Your task to perform on an android device: change notification settings in the gmail app Image 0: 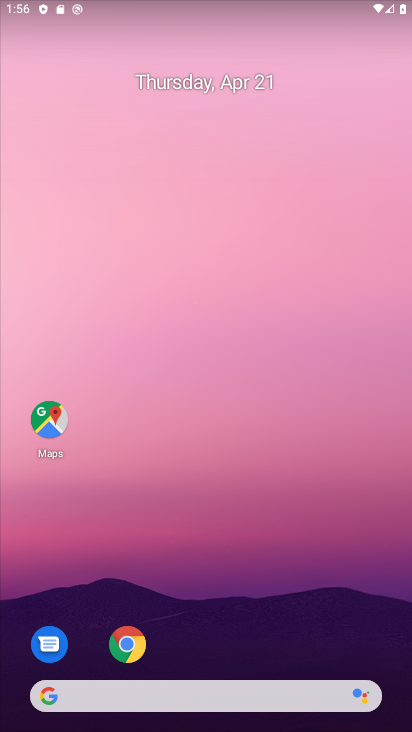
Step 0: drag from (277, 592) to (206, 83)
Your task to perform on an android device: change notification settings in the gmail app Image 1: 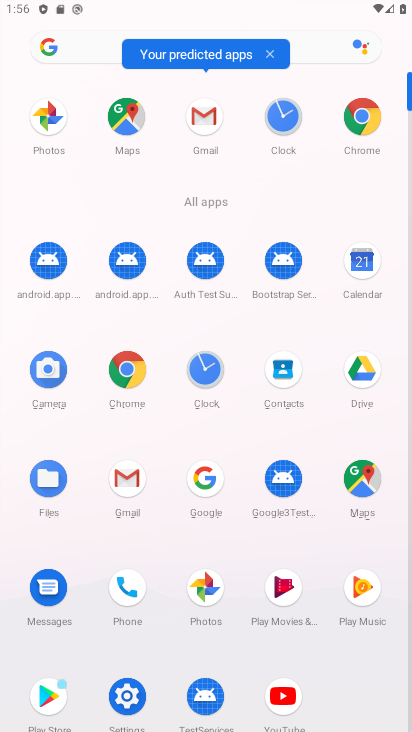
Step 1: click (199, 122)
Your task to perform on an android device: change notification settings in the gmail app Image 2: 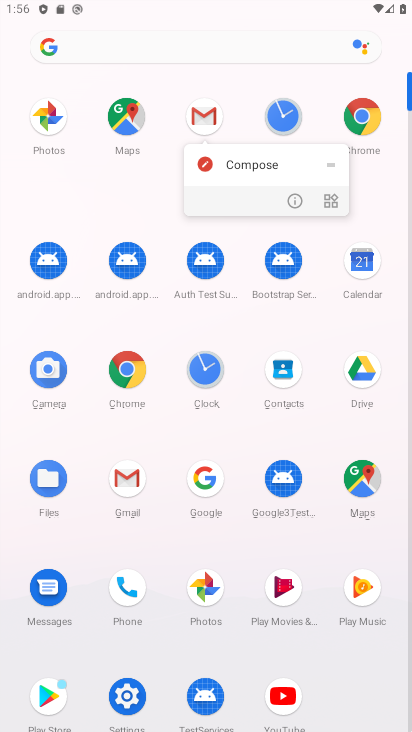
Step 2: click (296, 209)
Your task to perform on an android device: change notification settings in the gmail app Image 3: 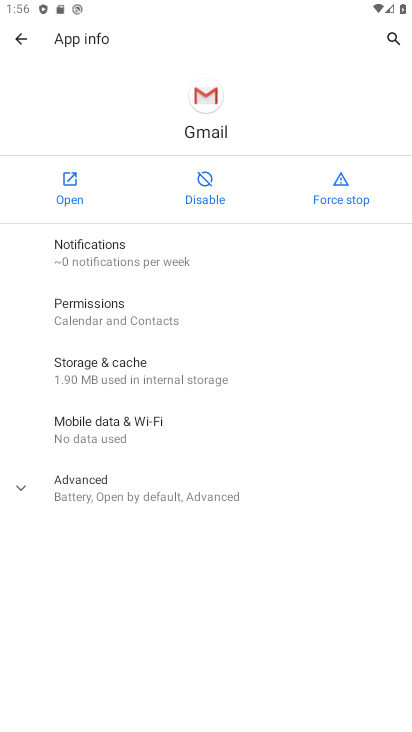
Step 3: click (134, 254)
Your task to perform on an android device: change notification settings in the gmail app Image 4: 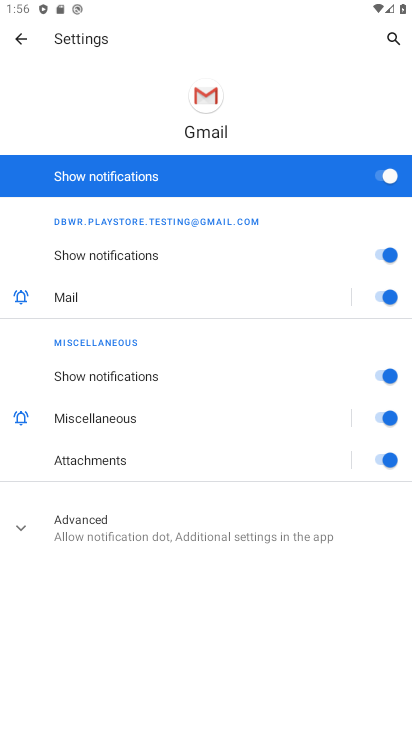
Step 4: click (391, 183)
Your task to perform on an android device: change notification settings in the gmail app Image 5: 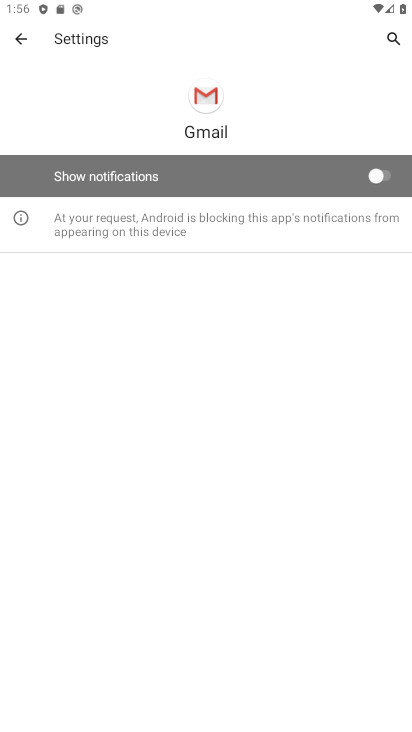
Step 5: task complete